Your task to perform on an android device: turn notification dots off Image 0: 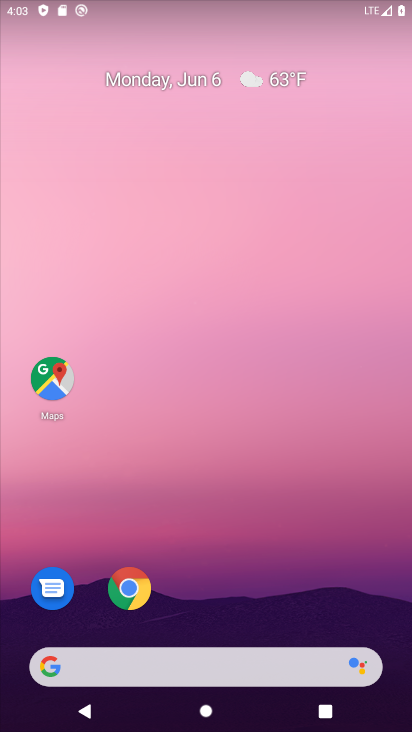
Step 0: click (134, 182)
Your task to perform on an android device: turn notification dots off Image 1: 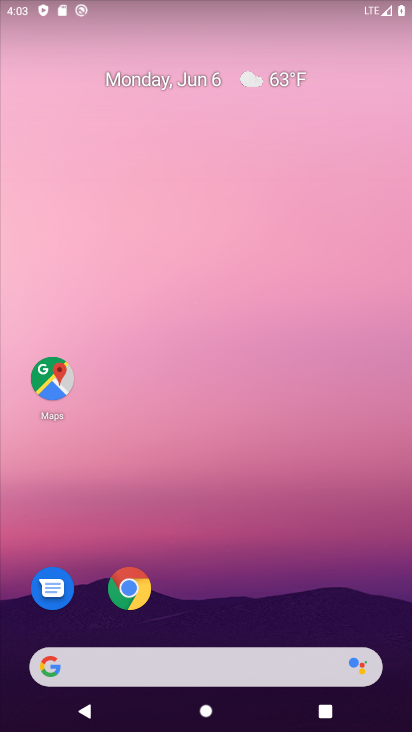
Step 1: drag from (203, 713) to (107, 183)
Your task to perform on an android device: turn notification dots off Image 2: 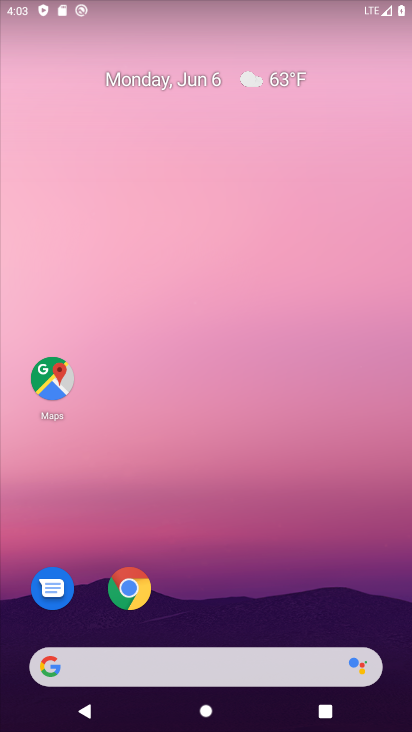
Step 2: drag from (283, 660) to (174, 274)
Your task to perform on an android device: turn notification dots off Image 3: 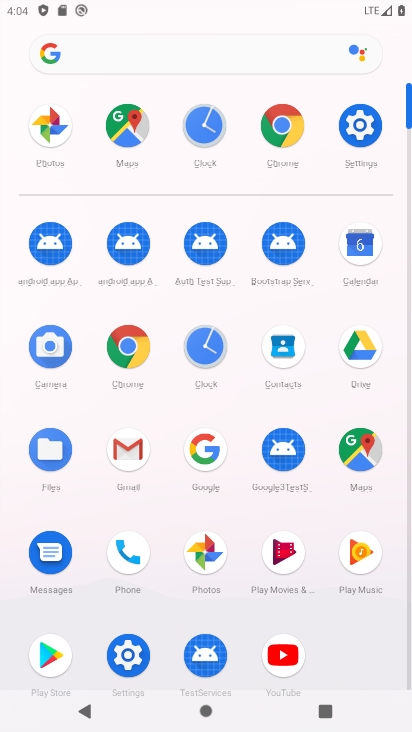
Step 3: click (368, 122)
Your task to perform on an android device: turn notification dots off Image 4: 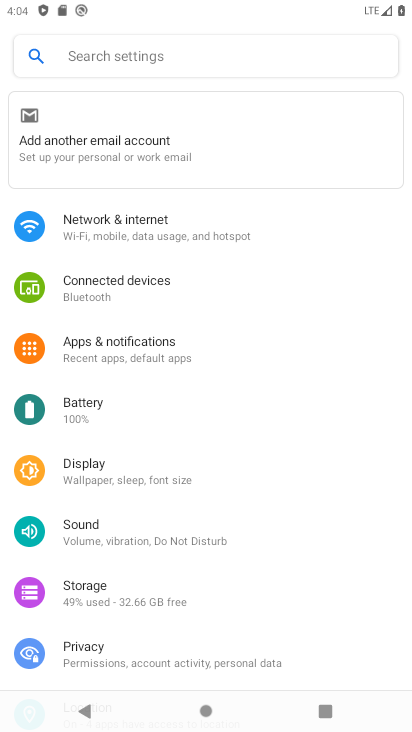
Step 4: click (114, 354)
Your task to perform on an android device: turn notification dots off Image 5: 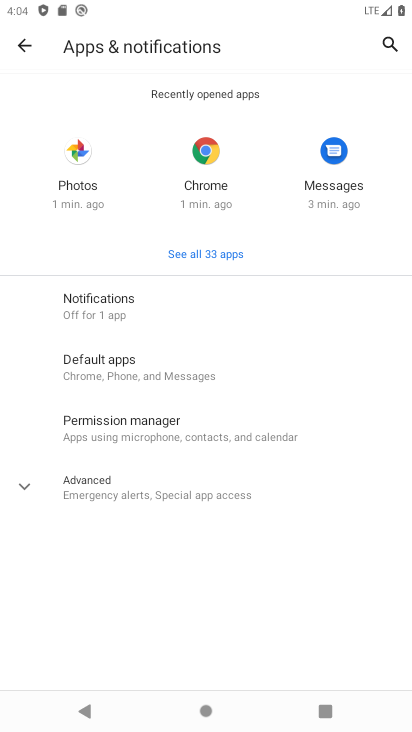
Step 5: click (89, 306)
Your task to perform on an android device: turn notification dots off Image 6: 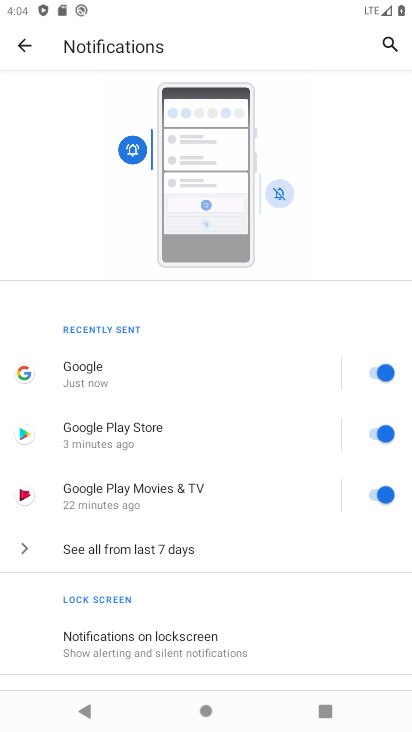
Step 6: drag from (151, 603) to (122, 245)
Your task to perform on an android device: turn notification dots off Image 7: 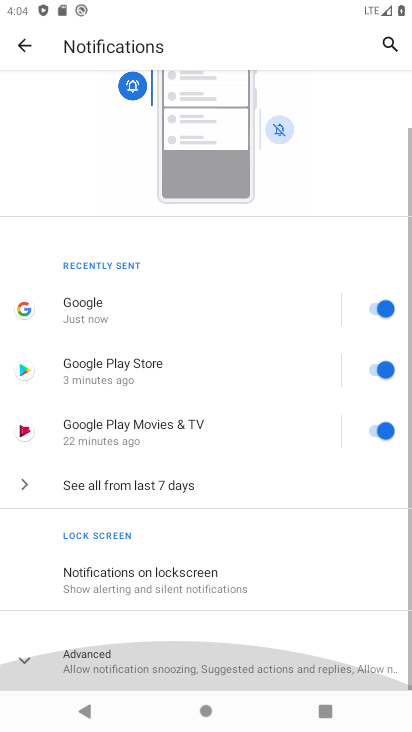
Step 7: drag from (158, 494) to (158, 242)
Your task to perform on an android device: turn notification dots off Image 8: 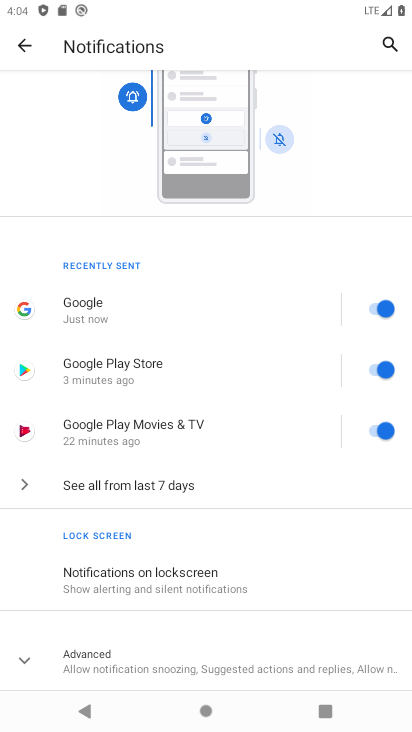
Step 8: click (106, 664)
Your task to perform on an android device: turn notification dots off Image 9: 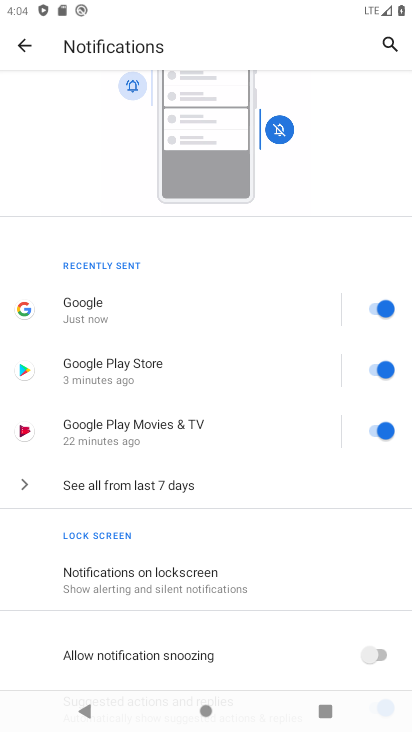
Step 9: click (198, 370)
Your task to perform on an android device: turn notification dots off Image 10: 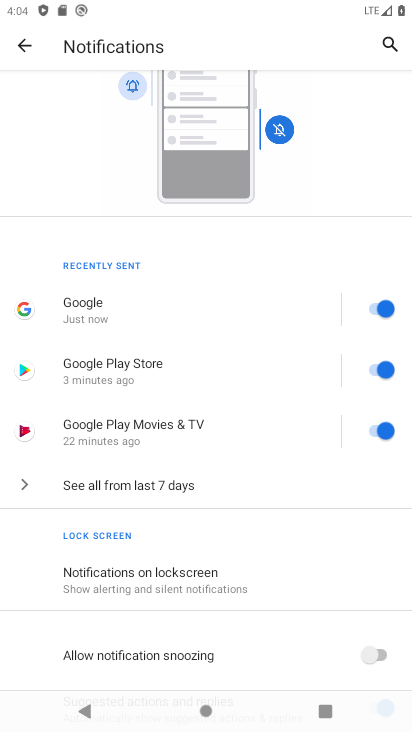
Step 10: drag from (267, 598) to (266, 305)
Your task to perform on an android device: turn notification dots off Image 11: 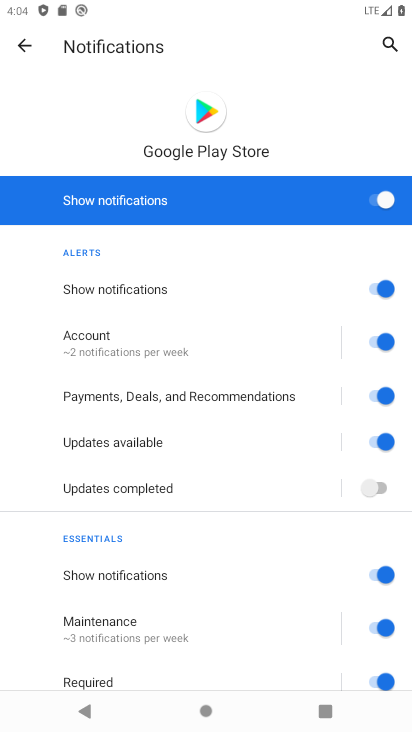
Step 11: click (17, 48)
Your task to perform on an android device: turn notification dots off Image 12: 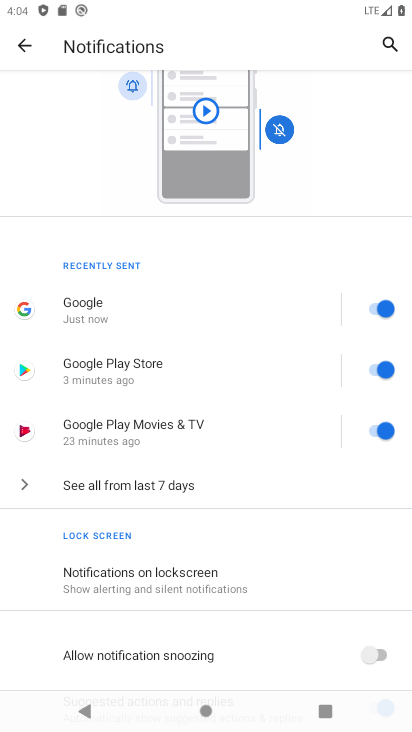
Step 12: drag from (237, 595) to (211, 203)
Your task to perform on an android device: turn notification dots off Image 13: 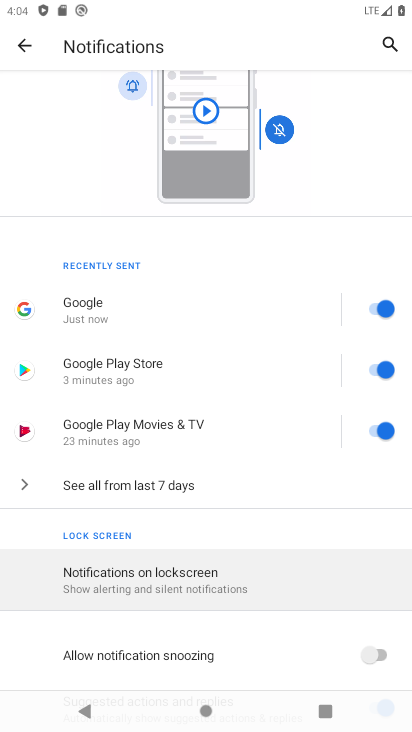
Step 13: drag from (246, 497) to (236, 236)
Your task to perform on an android device: turn notification dots off Image 14: 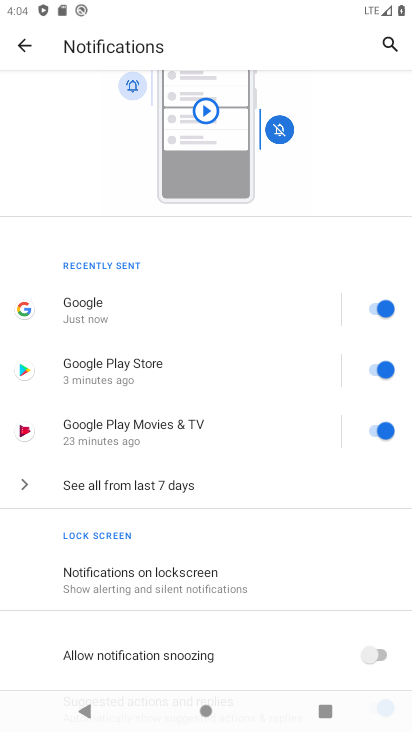
Step 14: click (262, 225)
Your task to perform on an android device: turn notification dots off Image 15: 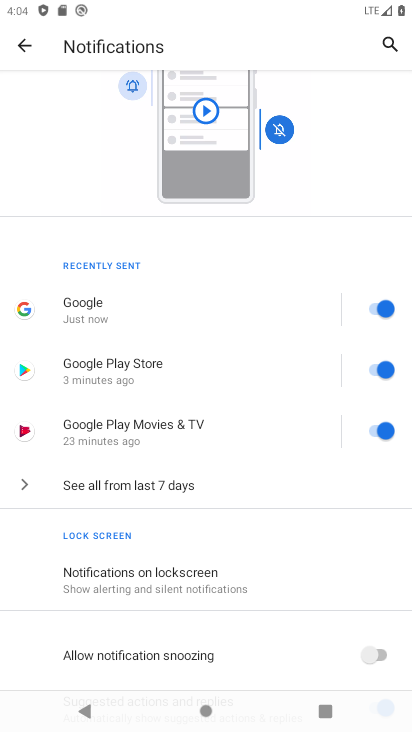
Step 15: task complete